Your task to perform on an android device: Go to display settings Image 0: 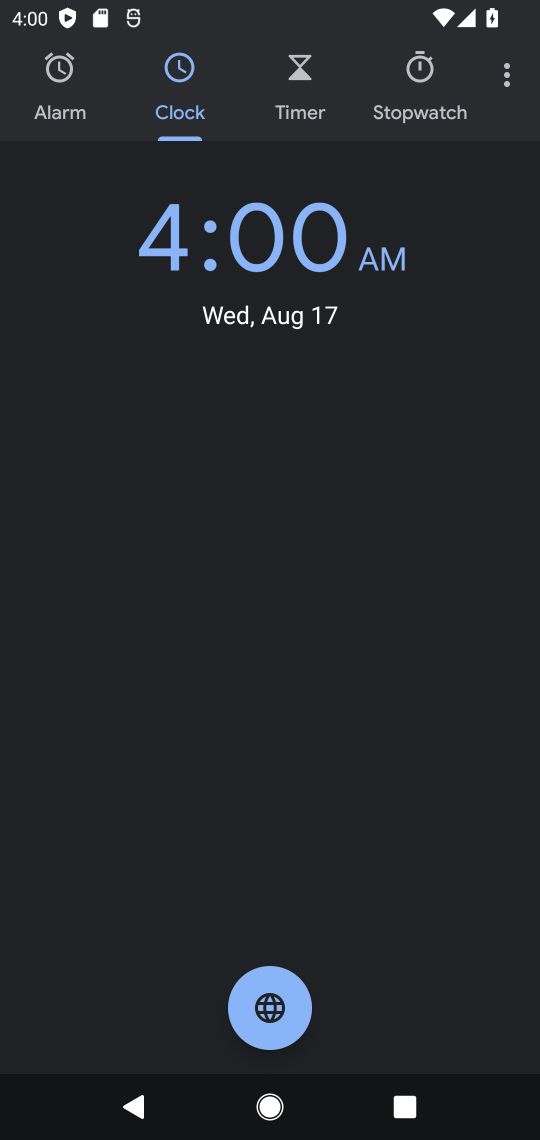
Step 0: press home button
Your task to perform on an android device: Go to display settings Image 1: 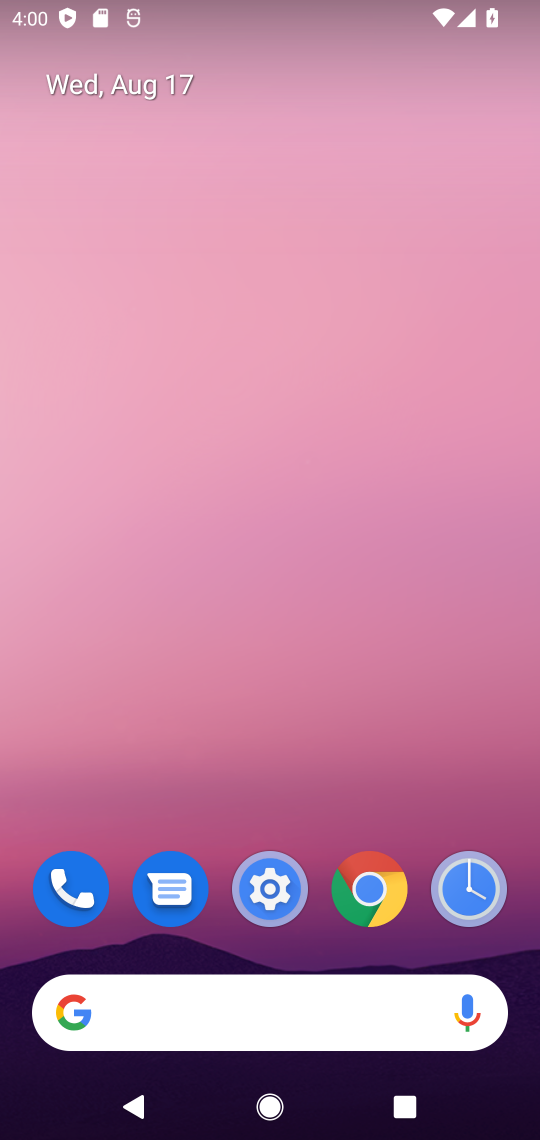
Step 1: click (273, 881)
Your task to perform on an android device: Go to display settings Image 2: 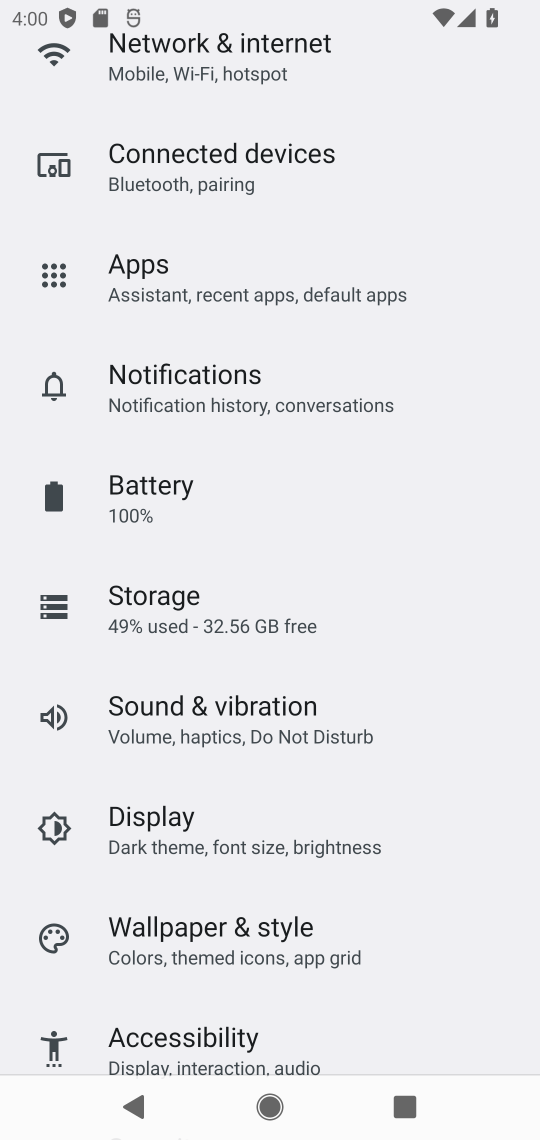
Step 2: click (161, 810)
Your task to perform on an android device: Go to display settings Image 3: 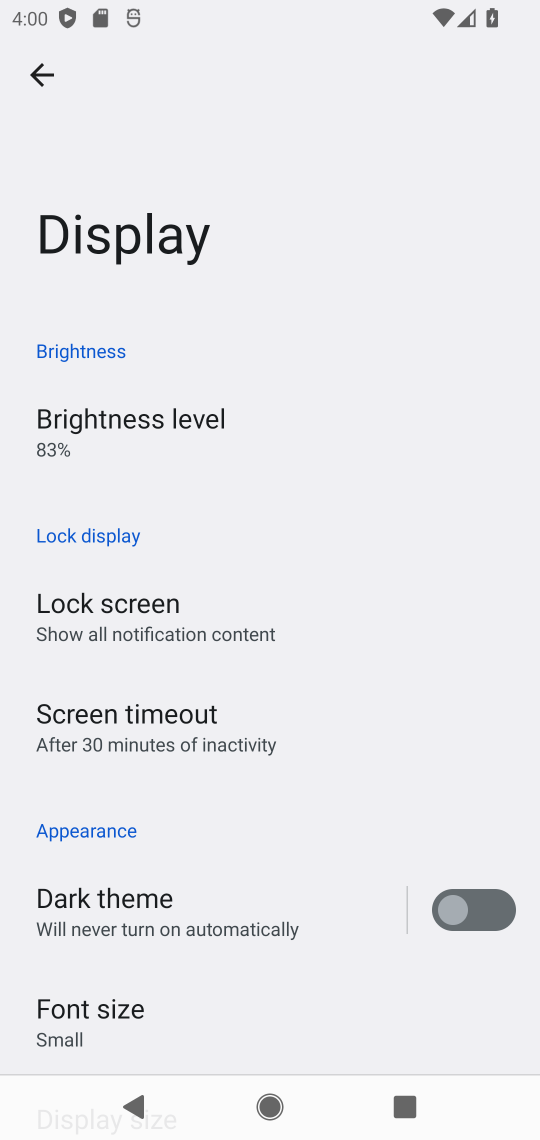
Step 3: task complete